Your task to perform on an android device: check data usage Image 0: 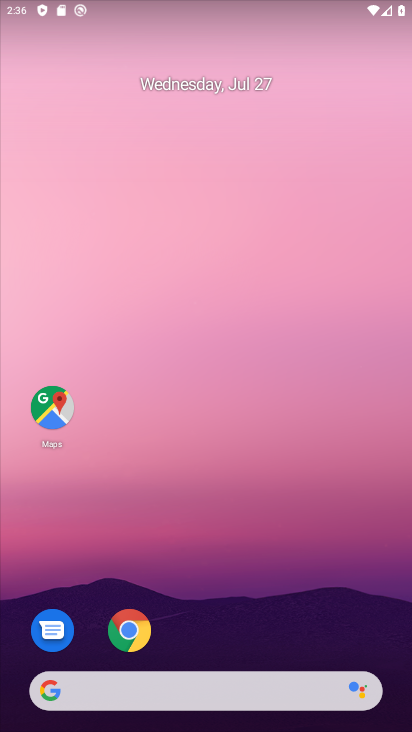
Step 0: press home button
Your task to perform on an android device: check data usage Image 1: 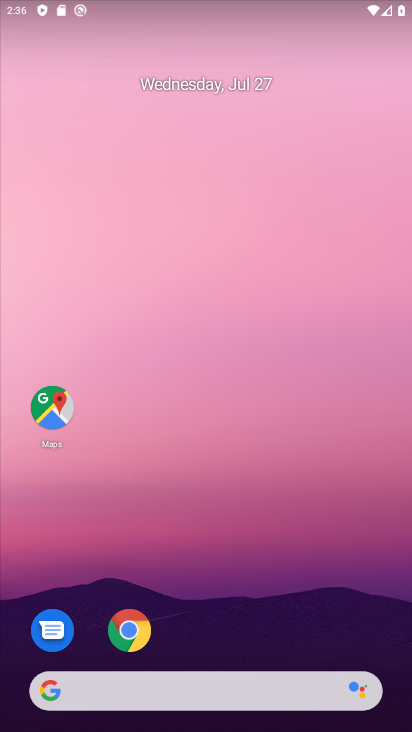
Step 1: drag from (227, 629) to (251, 46)
Your task to perform on an android device: check data usage Image 2: 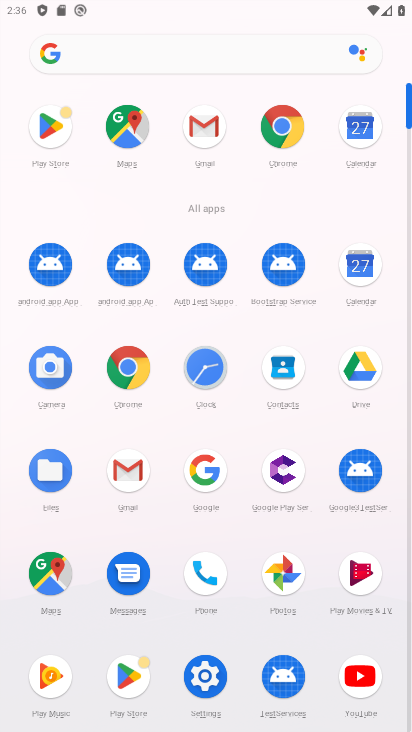
Step 2: click (212, 672)
Your task to perform on an android device: check data usage Image 3: 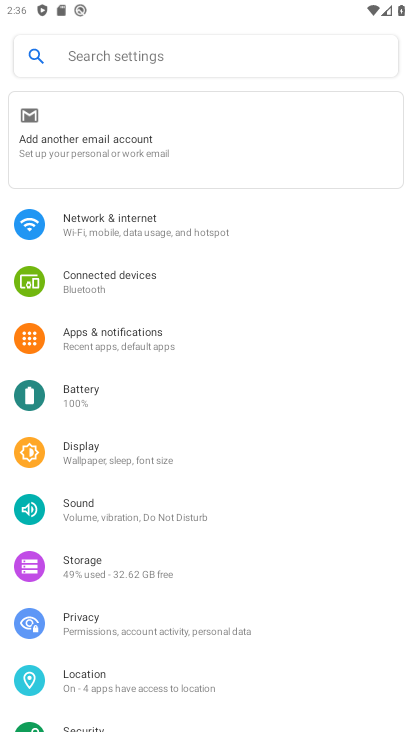
Step 3: click (125, 219)
Your task to perform on an android device: check data usage Image 4: 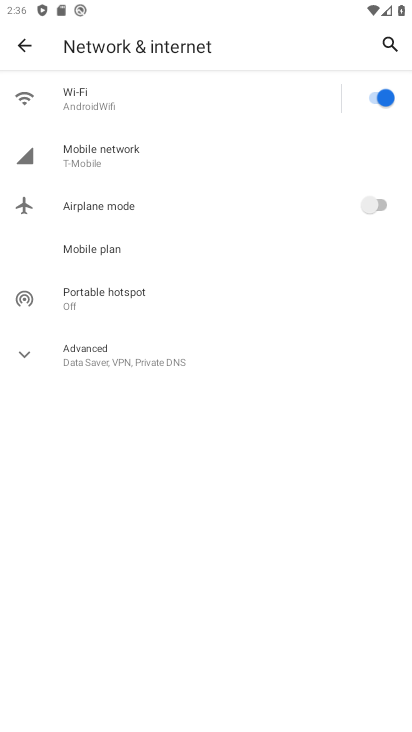
Step 4: click (103, 149)
Your task to perform on an android device: check data usage Image 5: 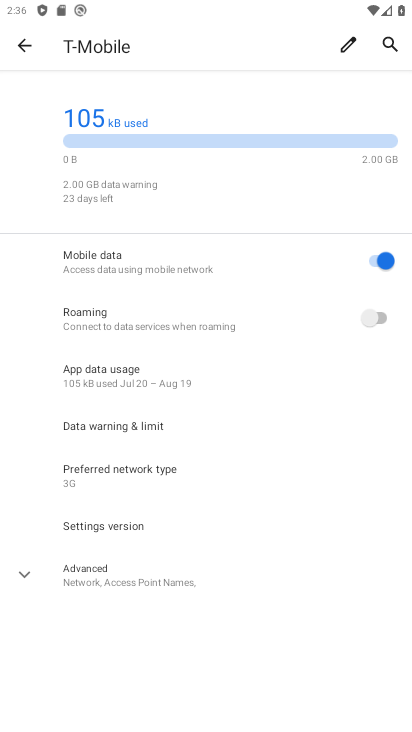
Step 5: click (100, 376)
Your task to perform on an android device: check data usage Image 6: 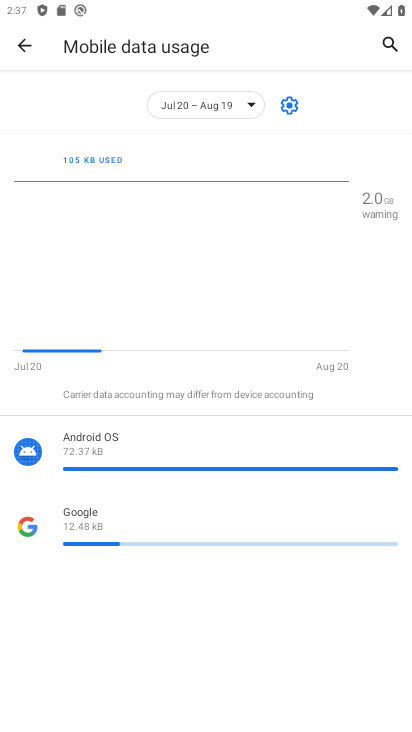
Step 6: task complete